Your task to perform on an android device: Find coffee shops on Maps Image 0: 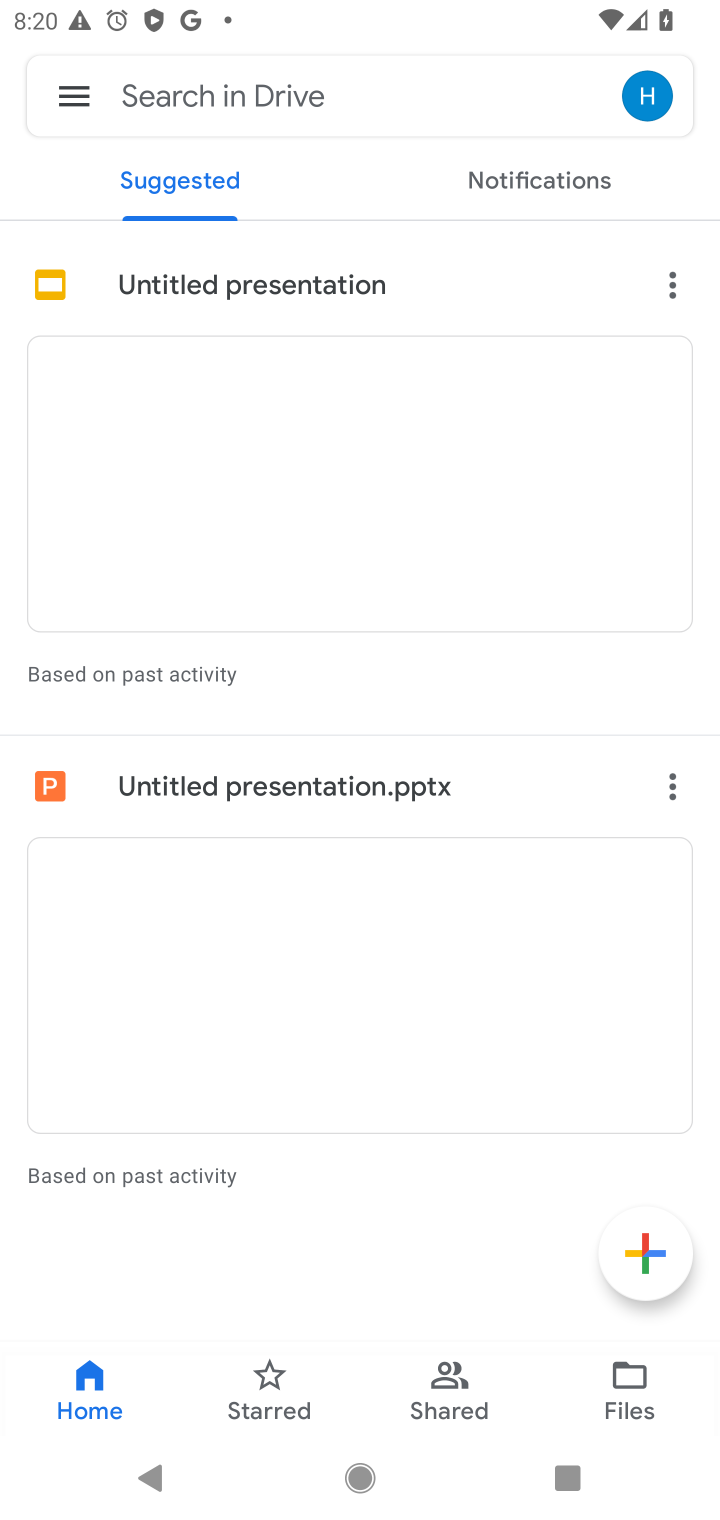
Step 0: press home button
Your task to perform on an android device: Find coffee shops on Maps Image 1: 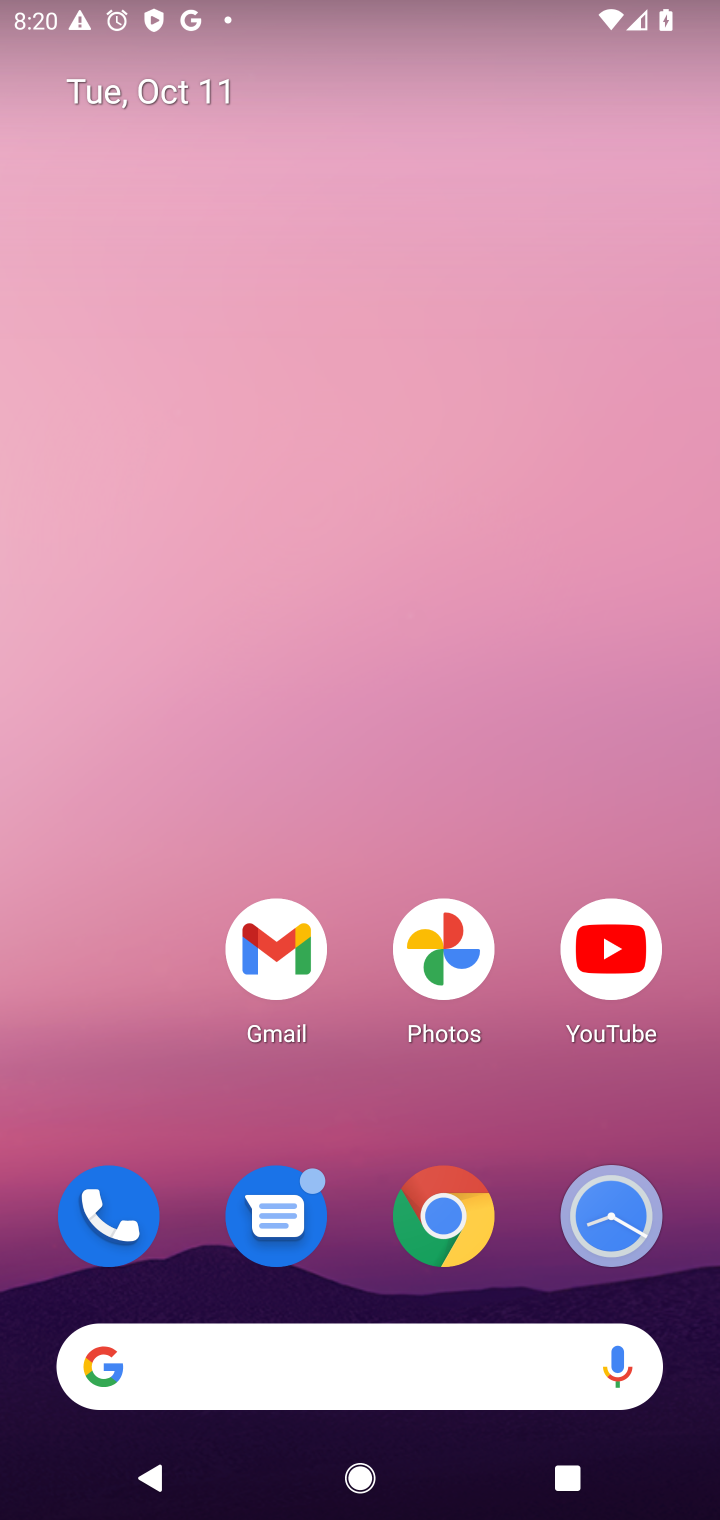
Step 1: drag from (382, 1362) to (358, 351)
Your task to perform on an android device: Find coffee shops on Maps Image 2: 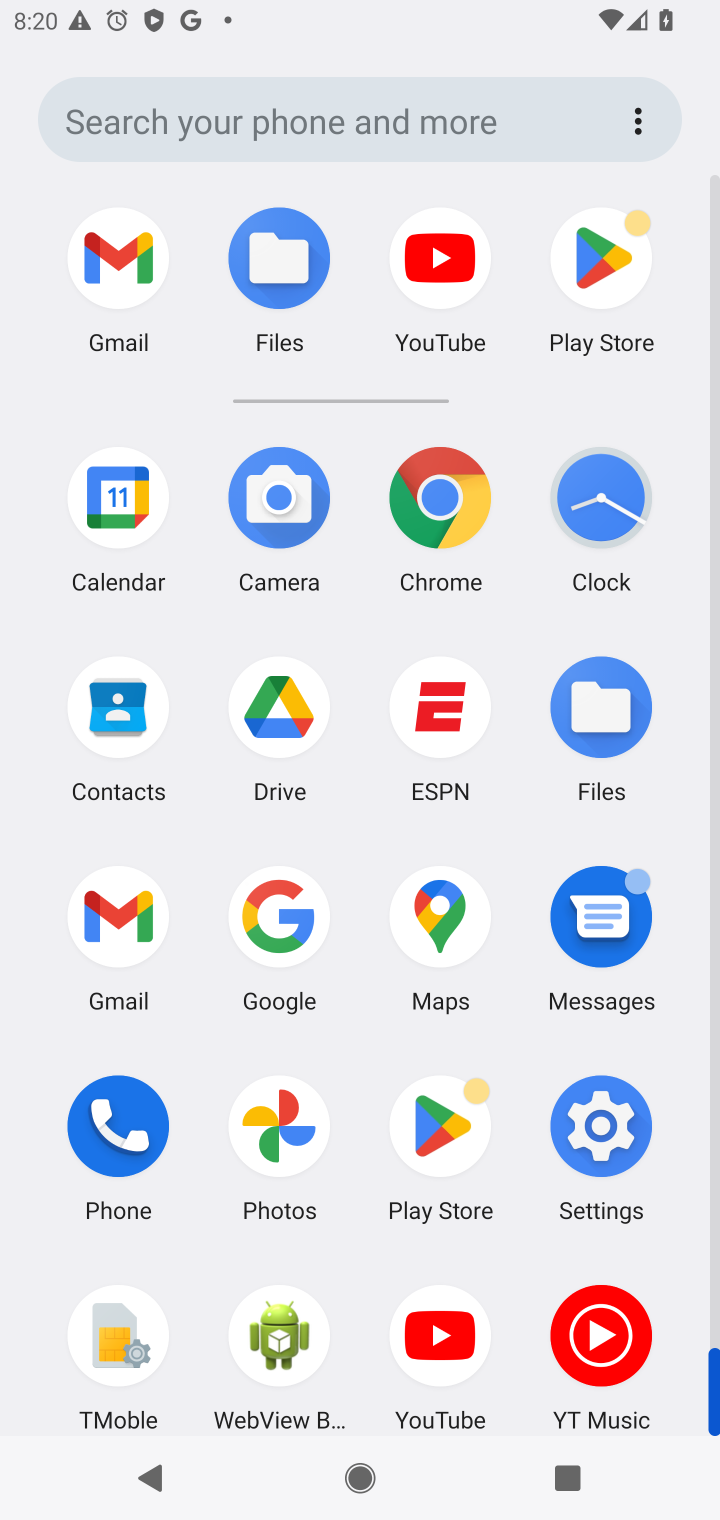
Step 2: click (414, 941)
Your task to perform on an android device: Find coffee shops on Maps Image 3: 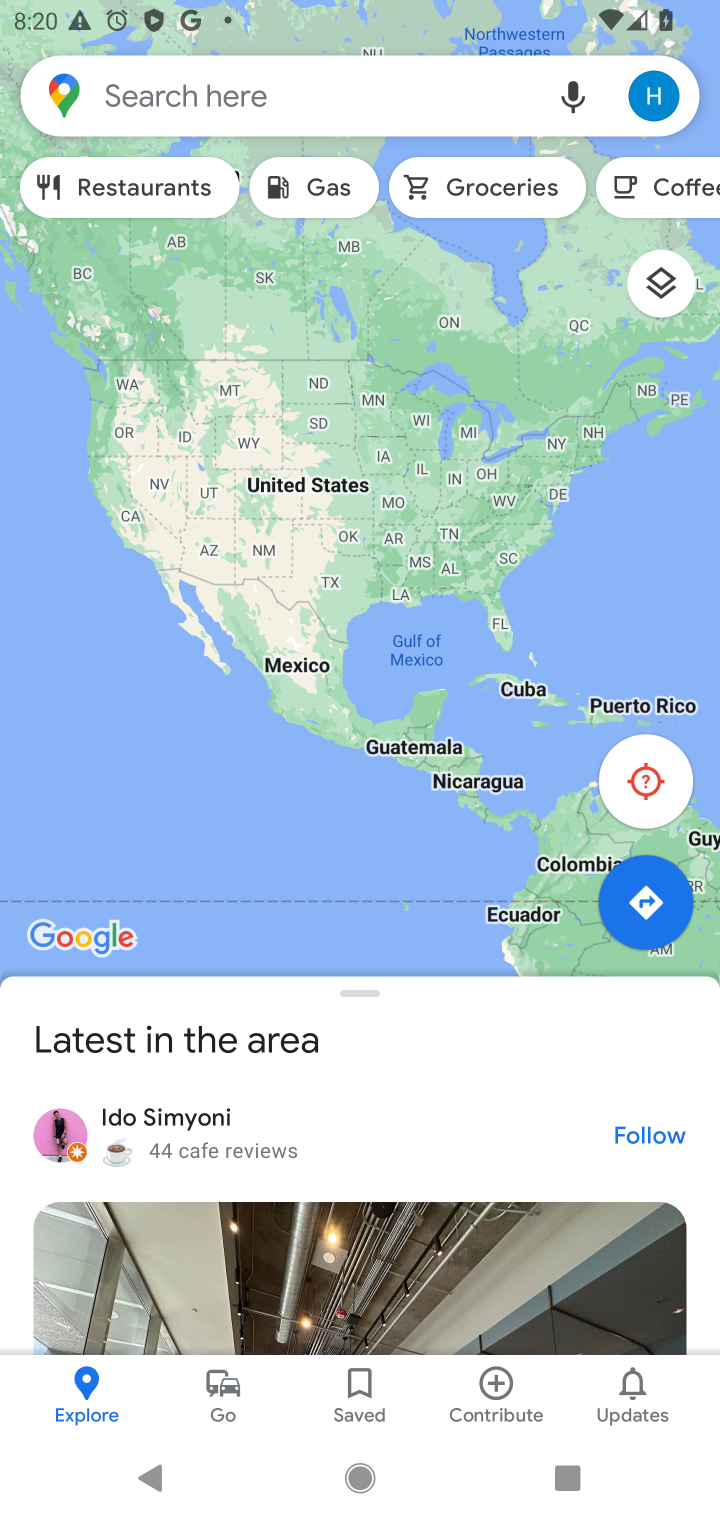
Step 3: click (333, 88)
Your task to perform on an android device: Find coffee shops on Maps Image 4: 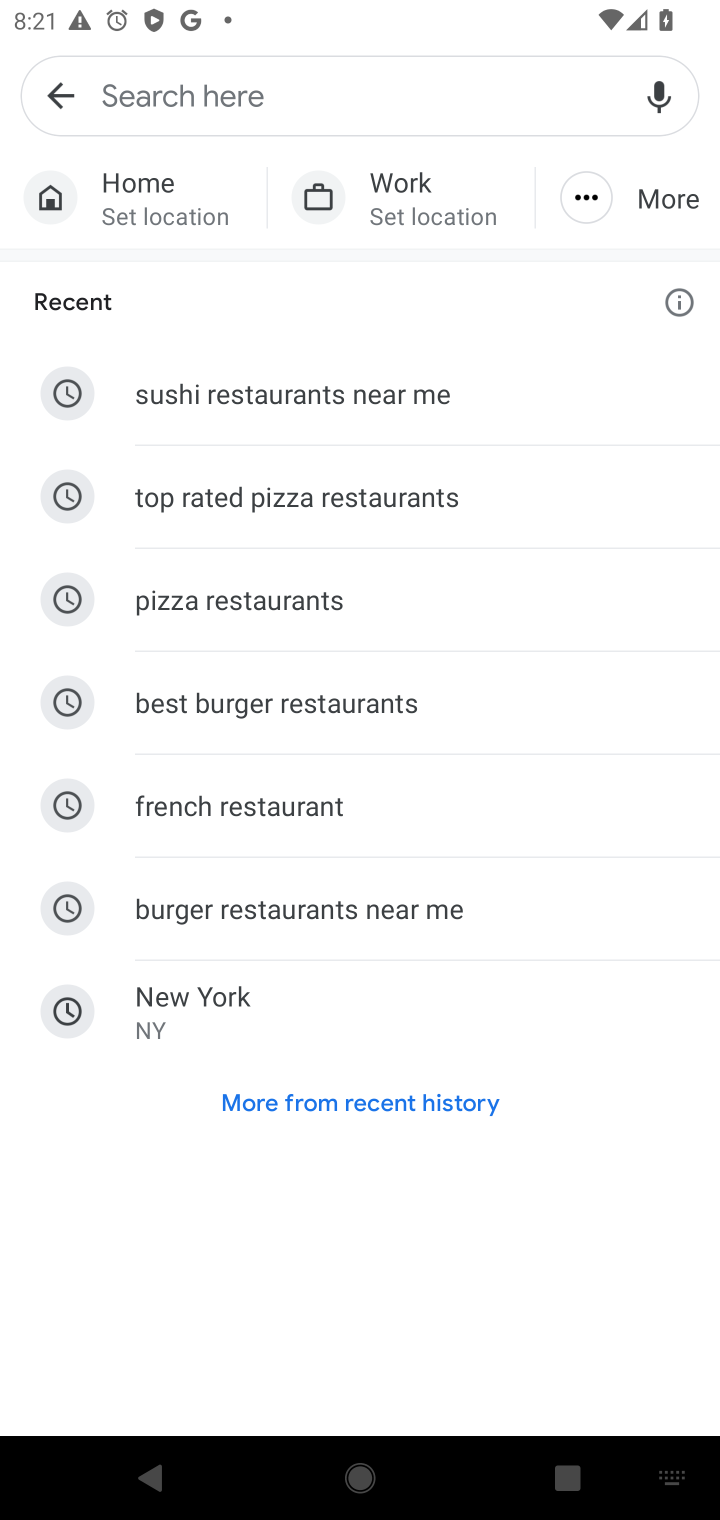
Step 4: type "coffee shops "
Your task to perform on an android device: Find coffee shops on Maps Image 5: 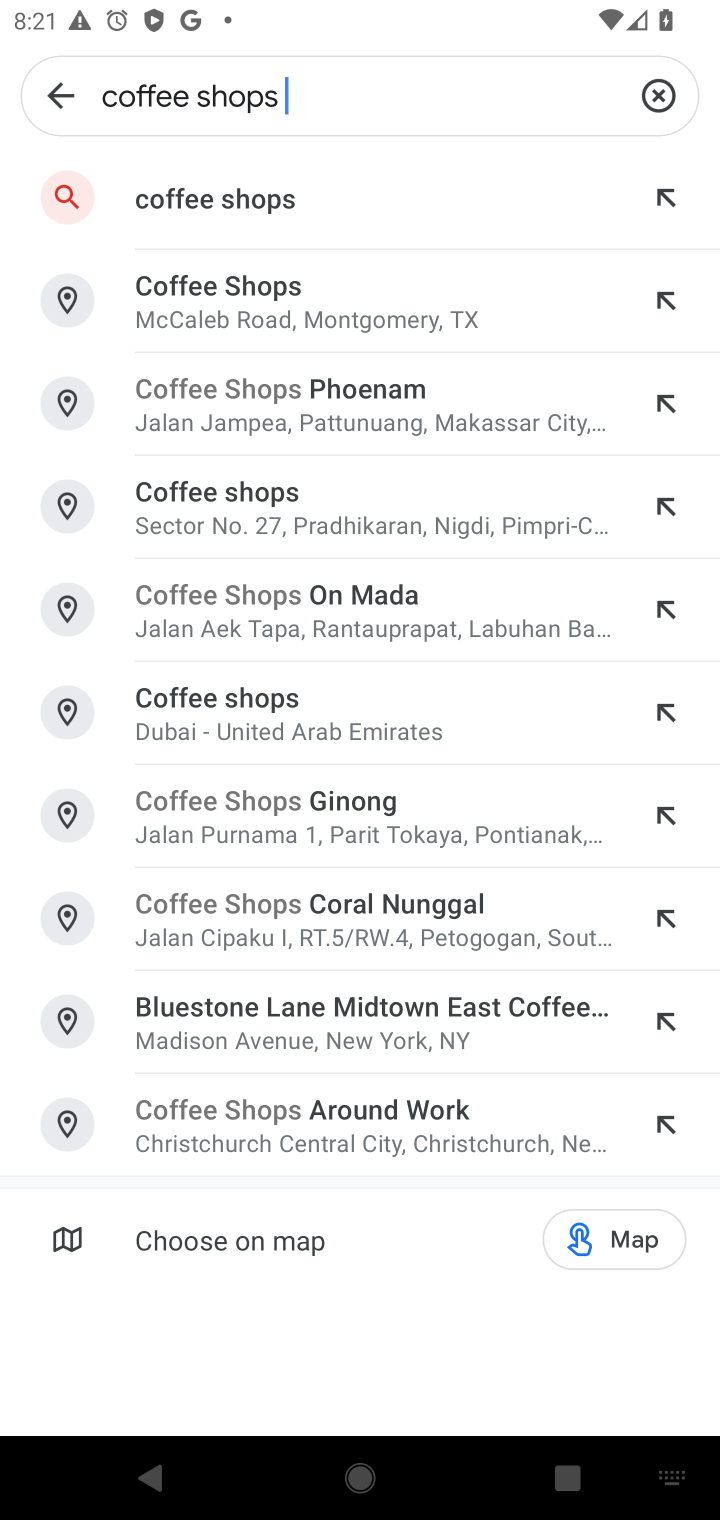
Step 5: click (321, 219)
Your task to perform on an android device: Find coffee shops on Maps Image 6: 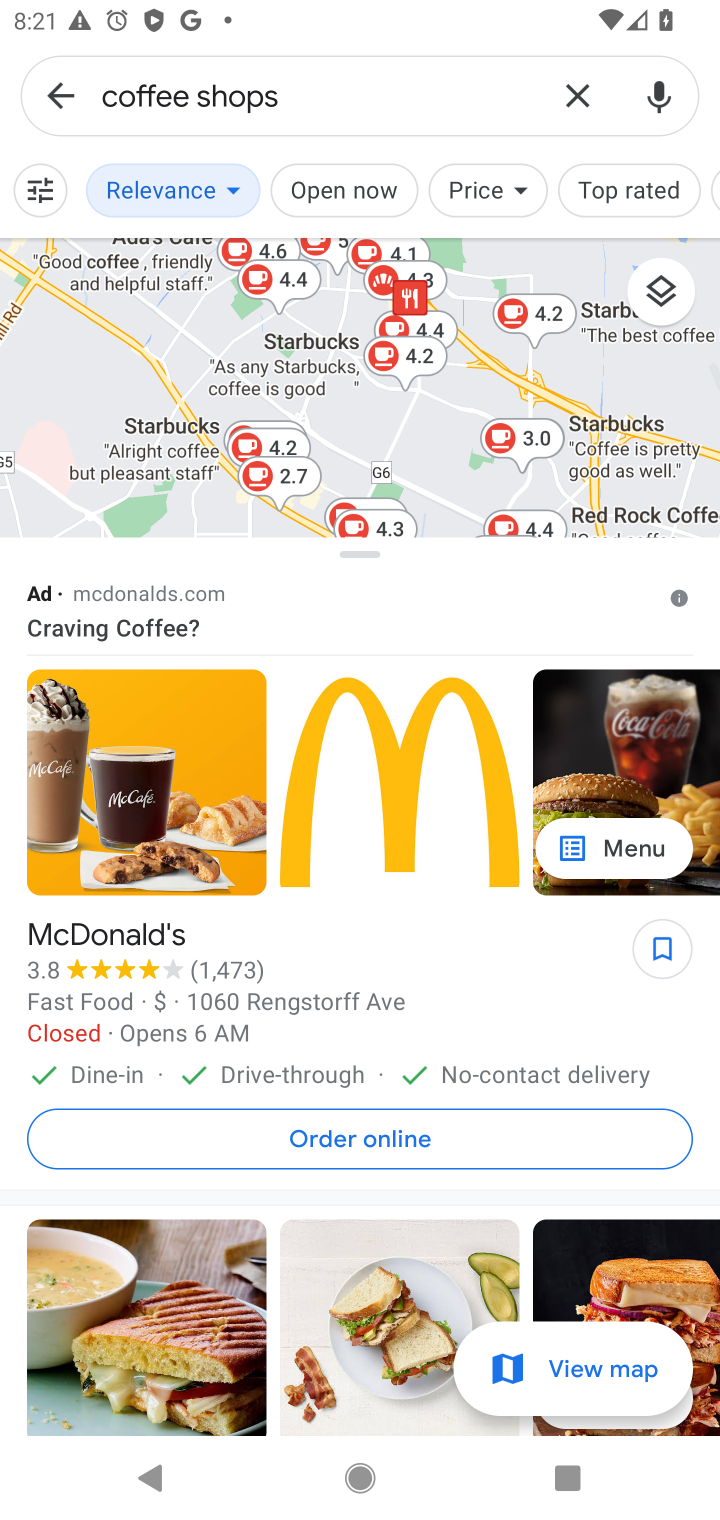
Step 6: task complete